Your task to perform on an android device: open app "The Home Depot" (install if not already installed), go to login, and select forgot password Image 0: 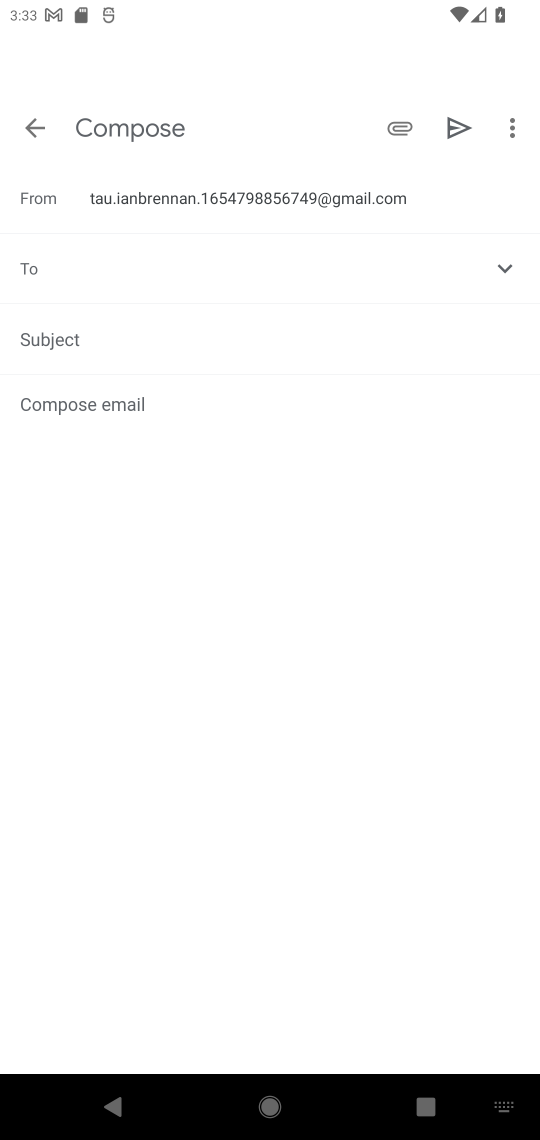
Step 0: press home button
Your task to perform on an android device: open app "The Home Depot" (install if not already installed), go to login, and select forgot password Image 1: 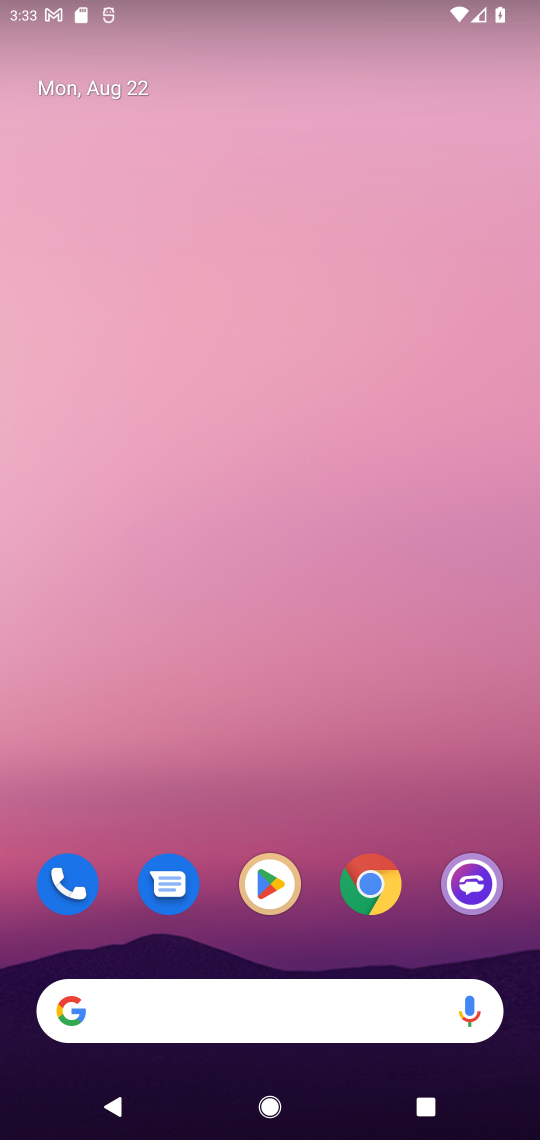
Step 1: click (283, 892)
Your task to perform on an android device: open app "The Home Depot" (install if not already installed), go to login, and select forgot password Image 2: 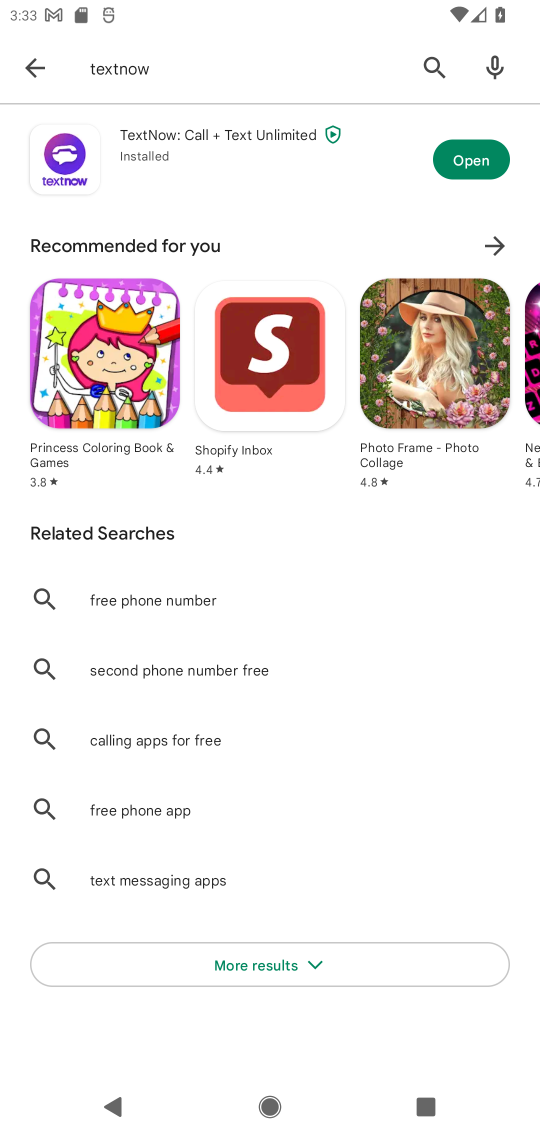
Step 2: click (207, 75)
Your task to perform on an android device: open app "The Home Depot" (install if not already installed), go to login, and select forgot password Image 3: 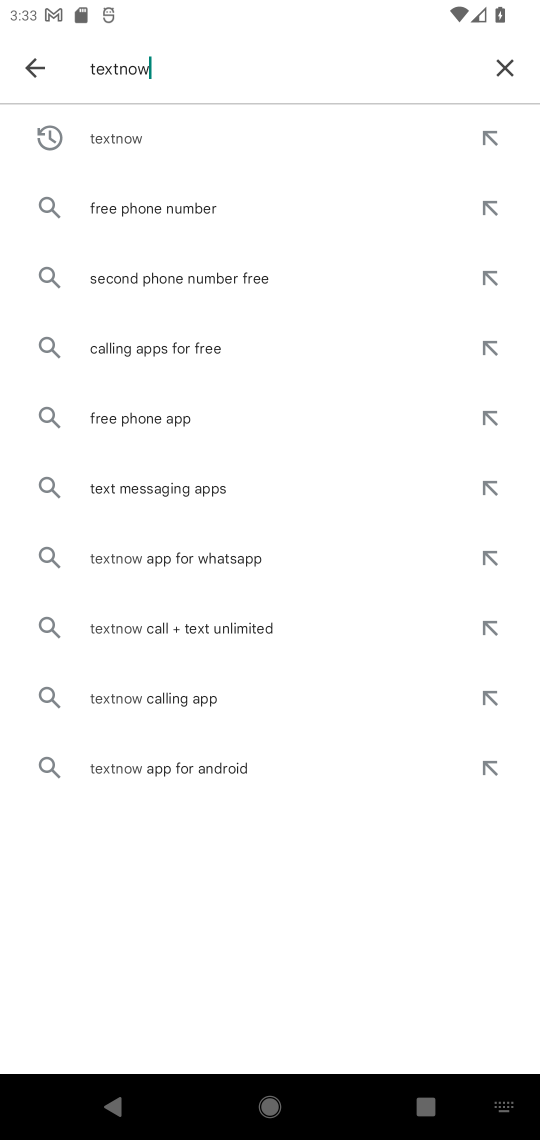
Step 3: click (500, 66)
Your task to perform on an android device: open app "The Home Depot" (install if not already installed), go to login, and select forgot password Image 4: 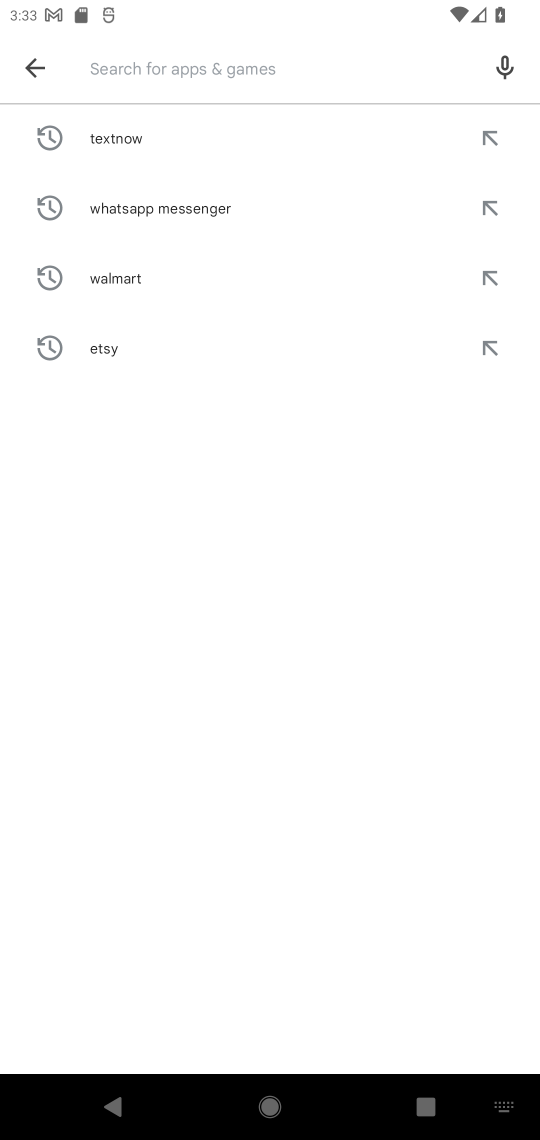
Step 4: type "the home depot"
Your task to perform on an android device: open app "The Home Depot" (install if not already installed), go to login, and select forgot password Image 5: 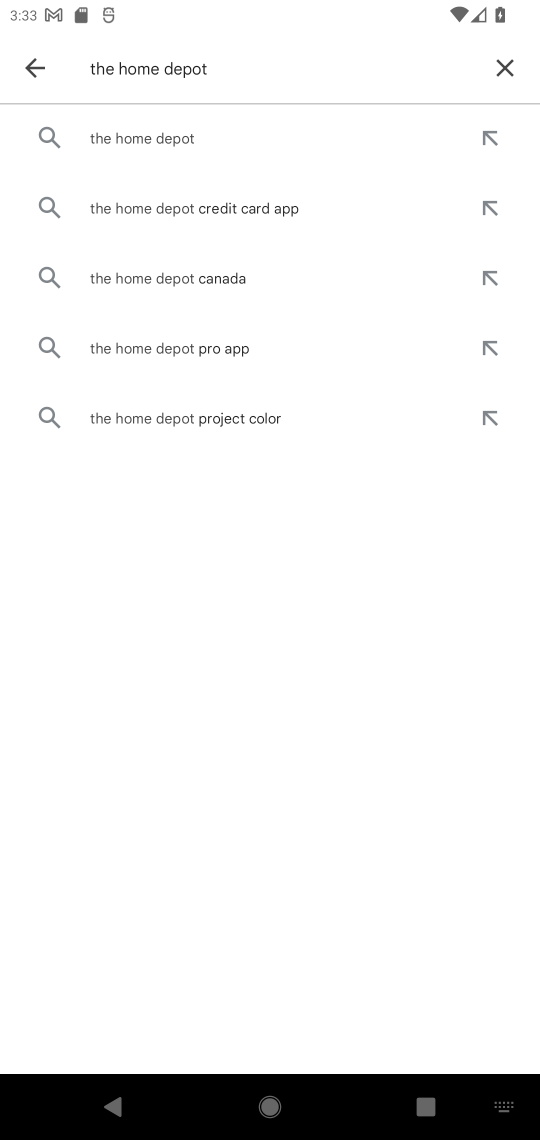
Step 5: click (182, 133)
Your task to perform on an android device: open app "The Home Depot" (install if not already installed), go to login, and select forgot password Image 6: 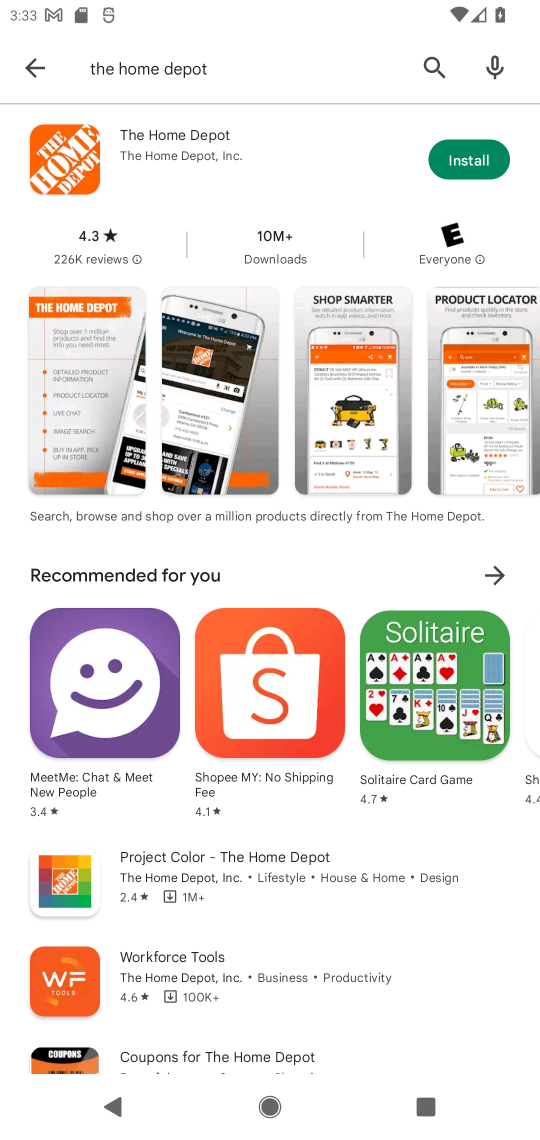
Step 6: click (498, 149)
Your task to perform on an android device: open app "The Home Depot" (install if not already installed), go to login, and select forgot password Image 7: 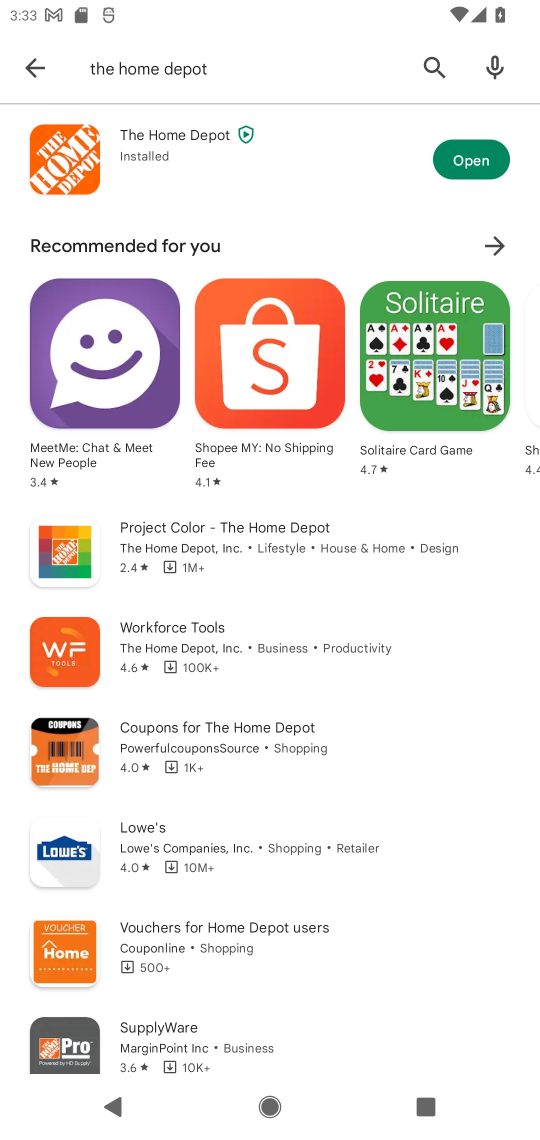
Step 7: click (471, 155)
Your task to perform on an android device: open app "The Home Depot" (install if not already installed), go to login, and select forgot password Image 8: 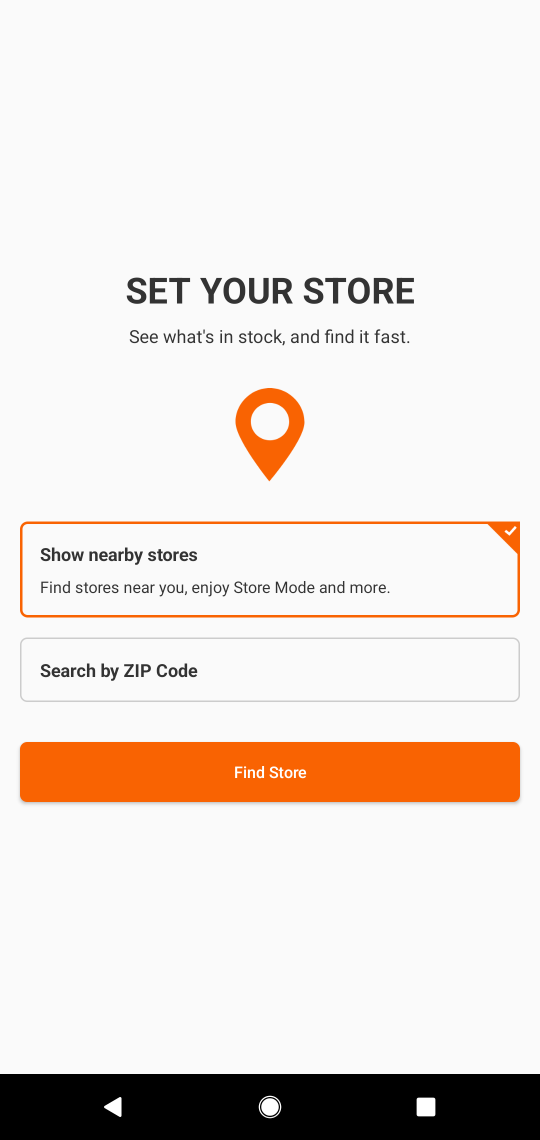
Step 8: click (262, 782)
Your task to perform on an android device: open app "The Home Depot" (install if not already installed), go to login, and select forgot password Image 9: 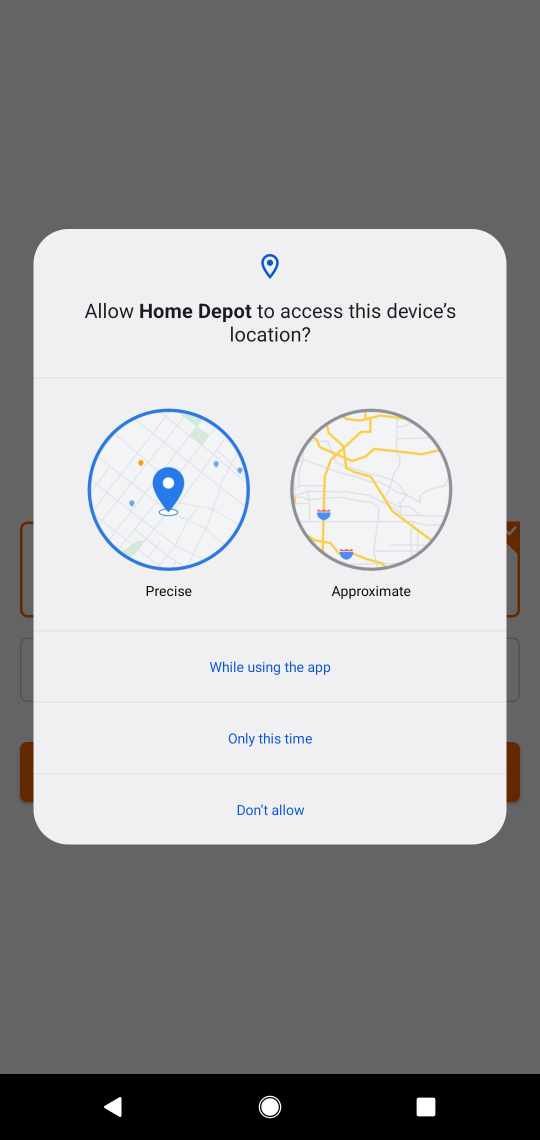
Step 9: click (296, 645)
Your task to perform on an android device: open app "The Home Depot" (install if not already installed), go to login, and select forgot password Image 10: 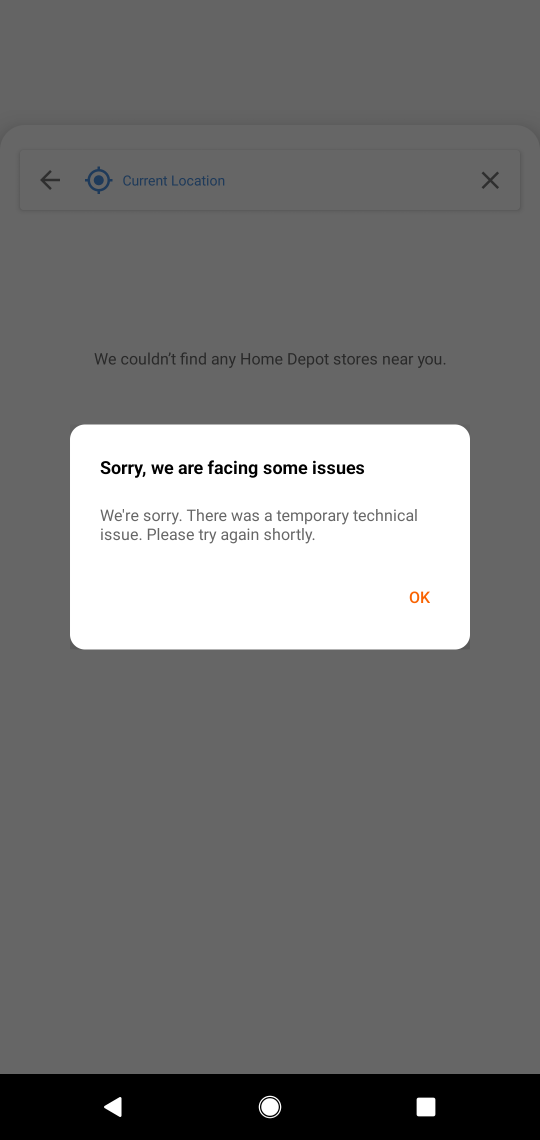
Step 10: click (425, 589)
Your task to perform on an android device: open app "The Home Depot" (install if not already installed), go to login, and select forgot password Image 11: 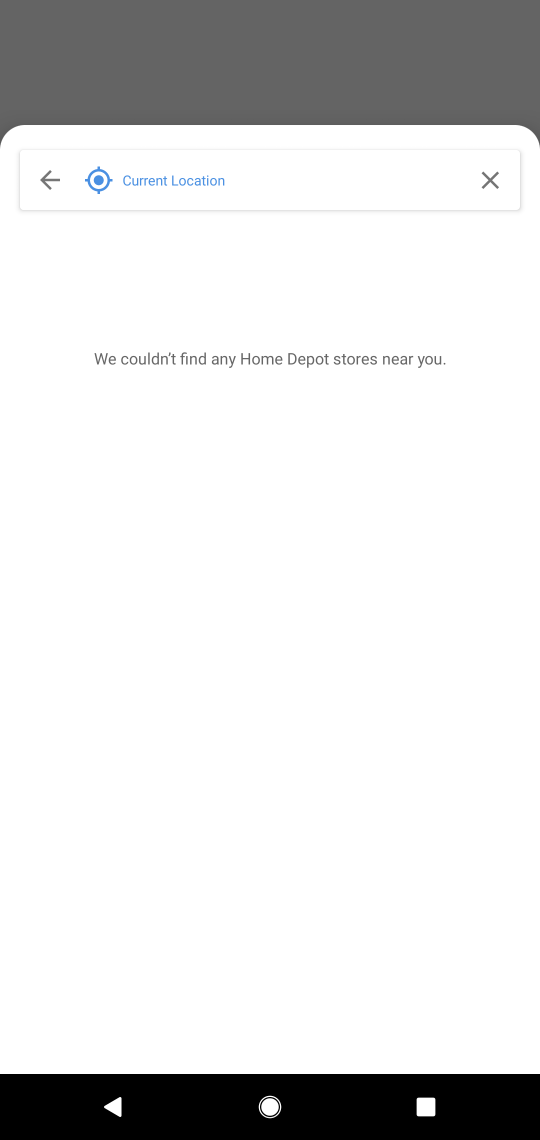
Step 11: click (170, 180)
Your task to perform on an android device: open app "The Home Depot" (install if not already installed), go to login, and select forgot password Image 12: 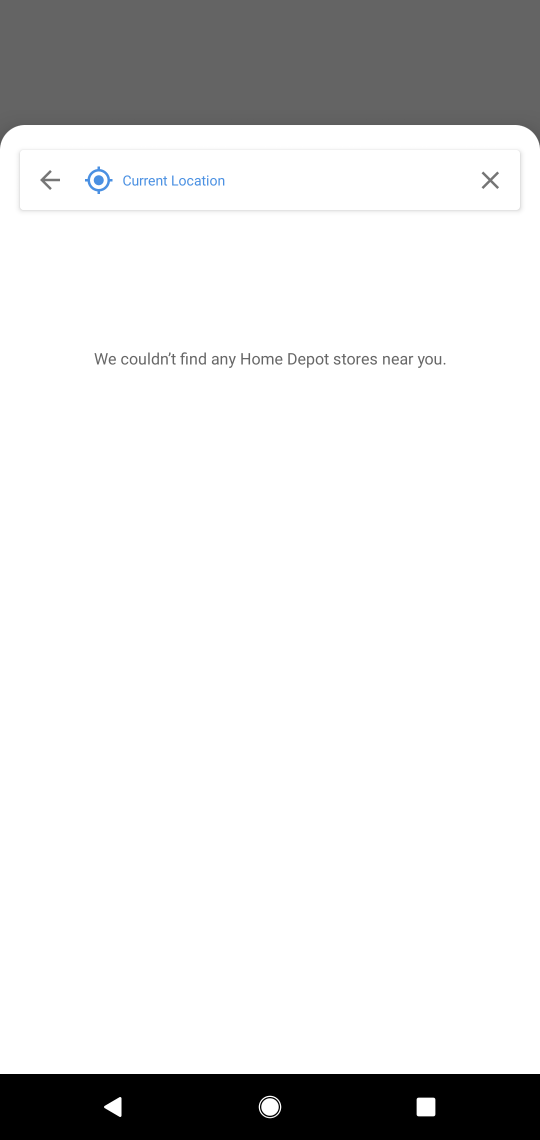
Step 12: click (184, 195)
Your task to perform on an android device: open app "The Home Depot" (install if not already installed), go to login, and select forgot password Image 13: 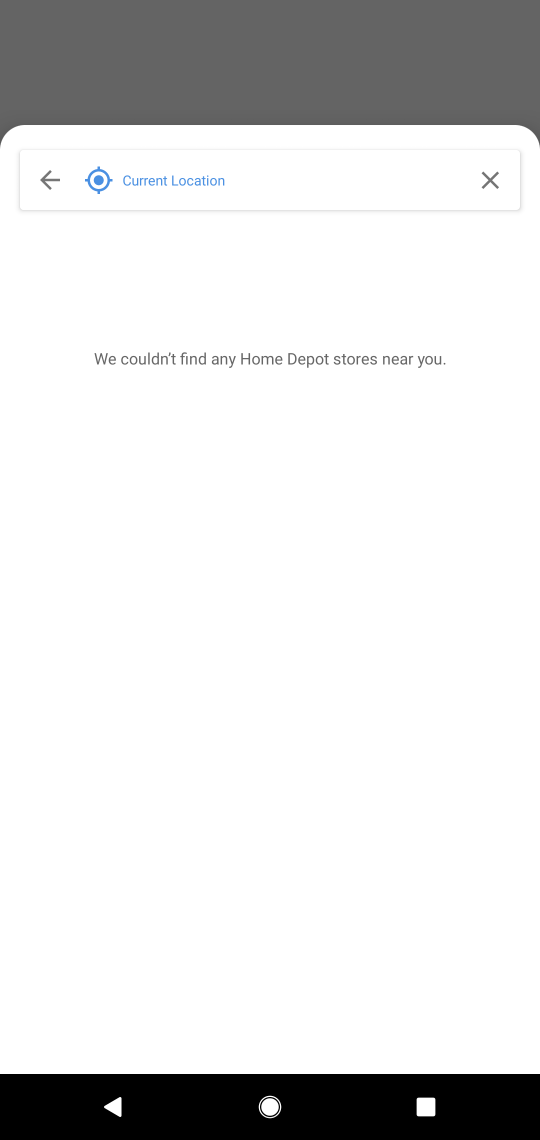
Step 13: click (52, 175)
Your task to perform on an android device: open app "The Home Depot" (install if not already installed), go to login, and select forgot password Image 14: 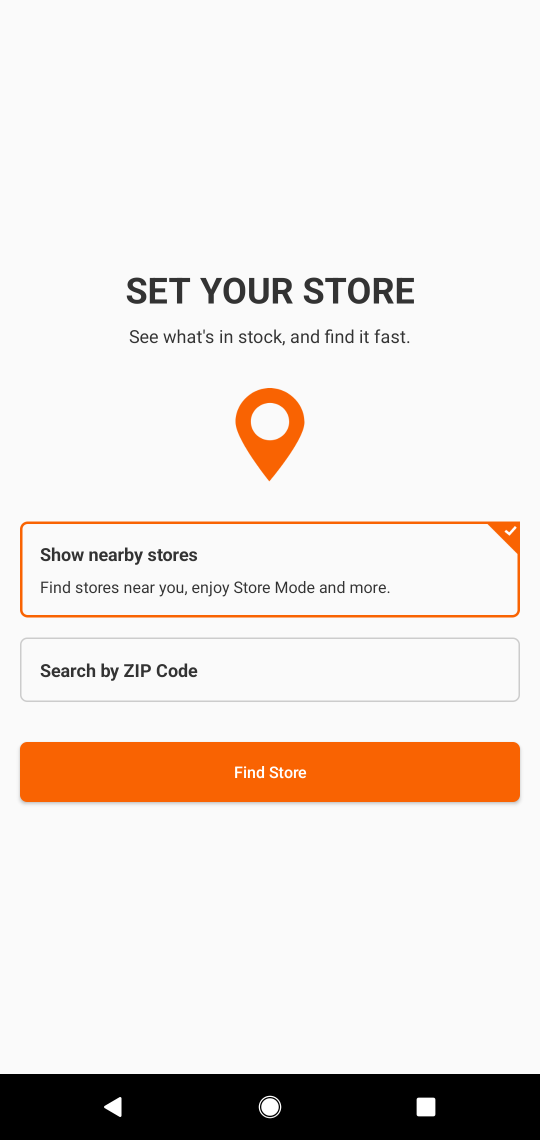
Step 14: task complete